Your task to perform on an android device: Add rayovac triple a to the cart on costco.com, then select checkout. Image 0: 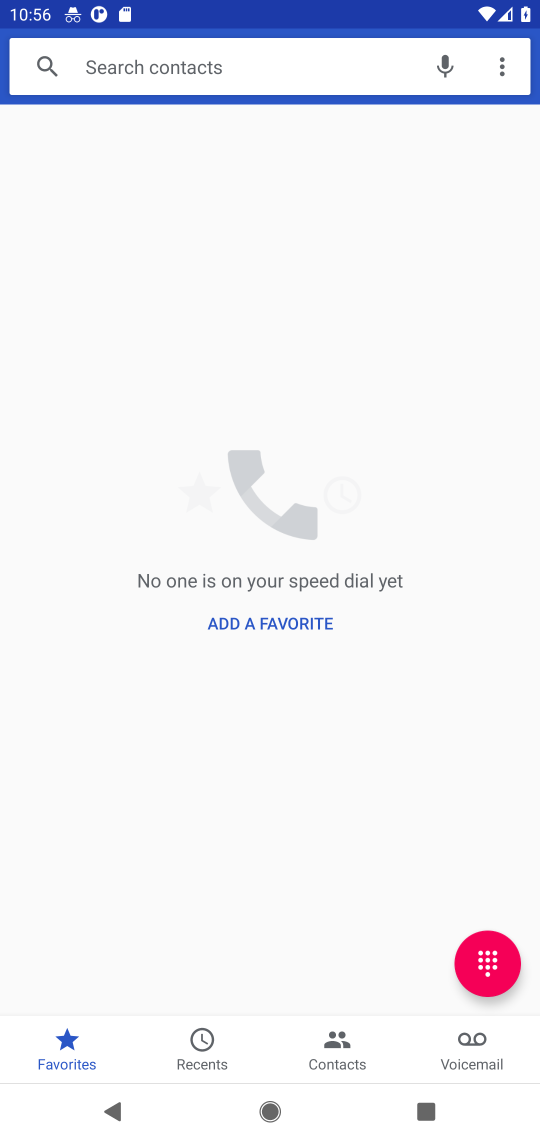
Step 0: press home button
Your task to perform on an android device: Add rayovac triple a to the cart on costco.com, then select checkout. Image 1: 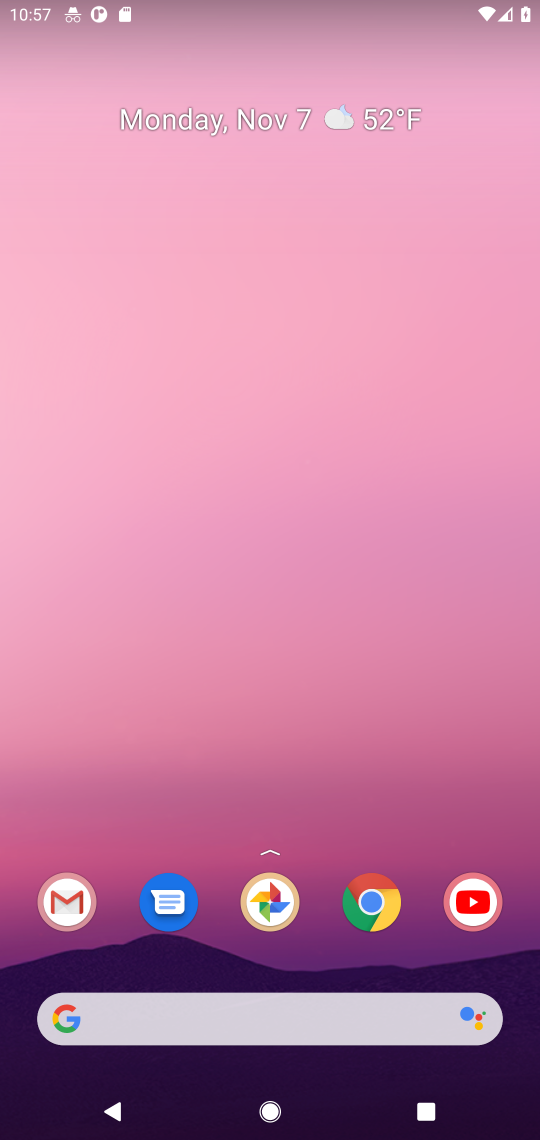
Step 1: click (377, 914)
Your task to perform on an android device: Add rayovac triple a to the cart on costco.com, then select checkout. Image 2: 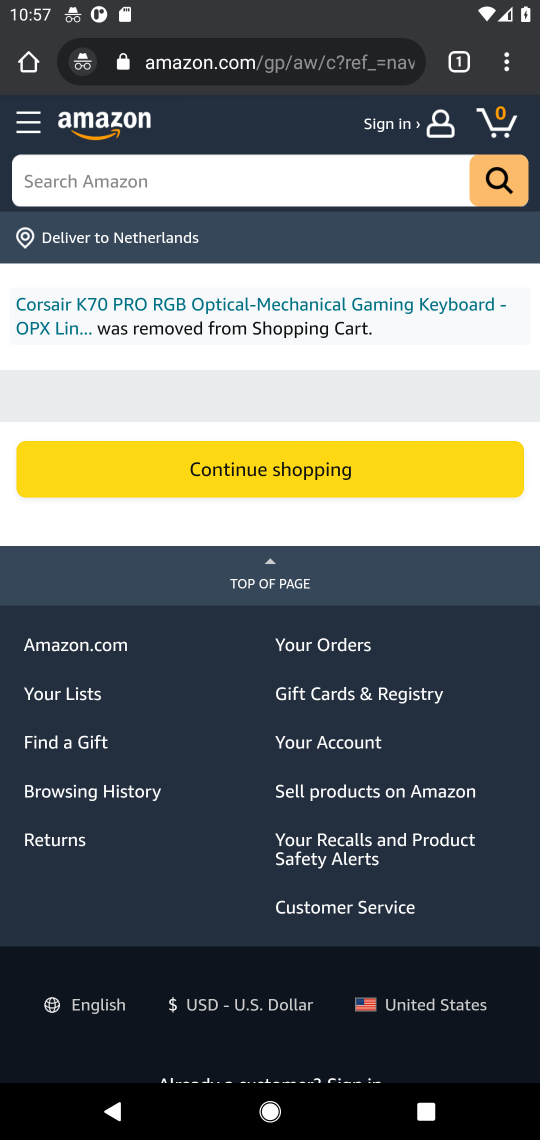
Step 2: click (220, 72)
Your task to perform on an android device: Add rayovac triple a to the cart on costco.com, then select checkout. Image 3: 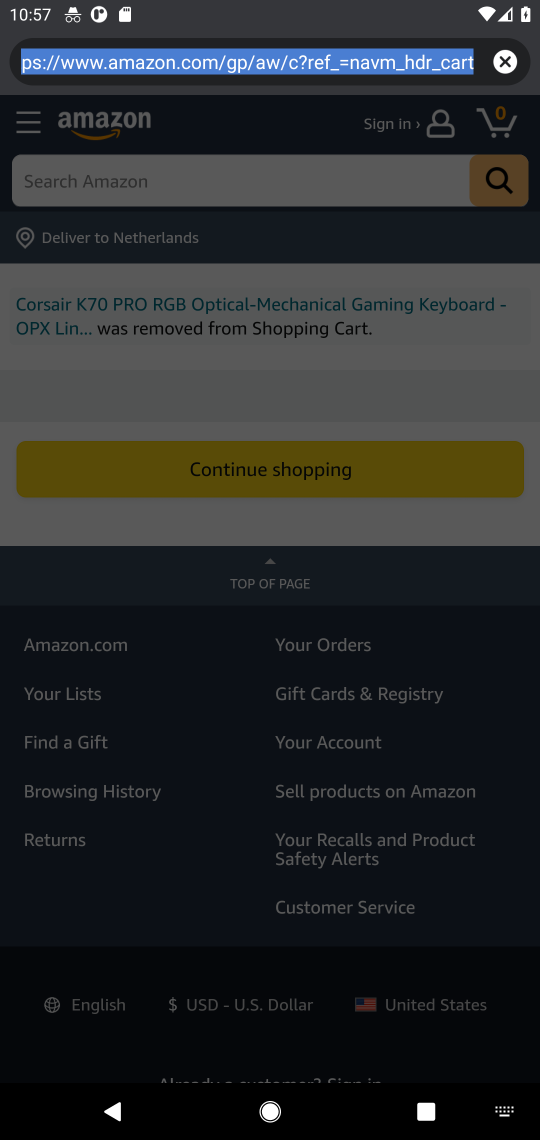
Step 3: type "costco.com"
Your task to perform on an android device: Add rayovac triple a to the cart on costco.com, then select checkout. Image 4: 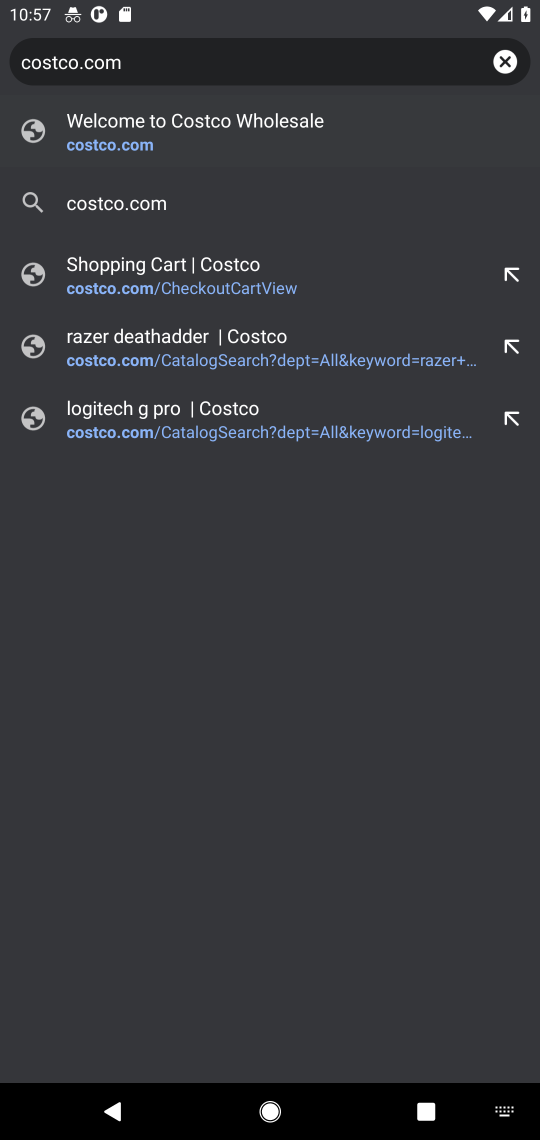
Step 4: click (129, 150)
Your task to perform on an android device: Add rayovac triple a to the cart on costco.com, then select checkout. Image 5: 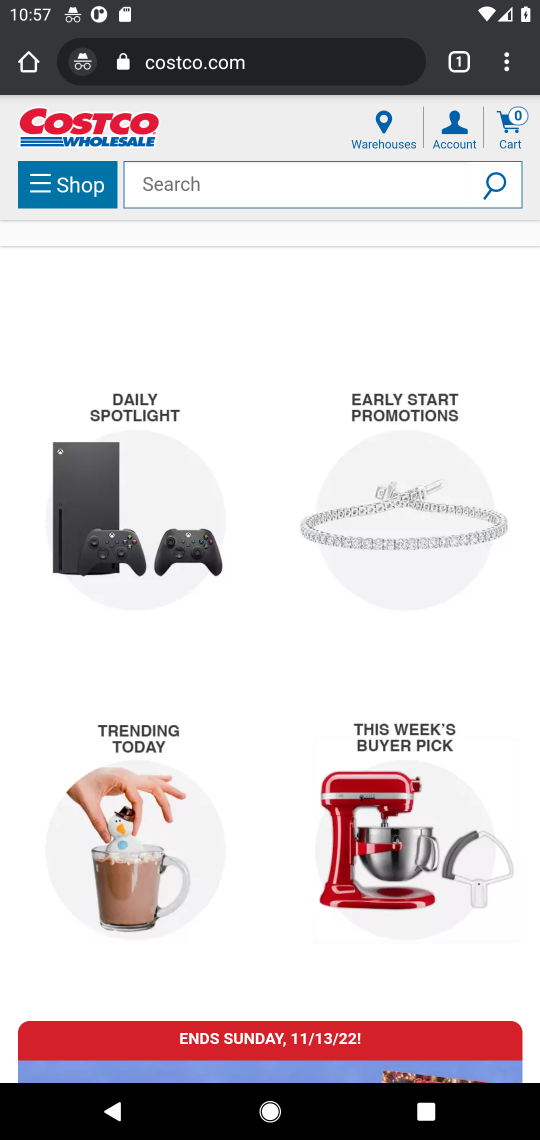
Step 5: click (153, 174)
Your task to perform on an android device: Add rayovac triple a to the cart on costco.com, then select checkout. Image 6: 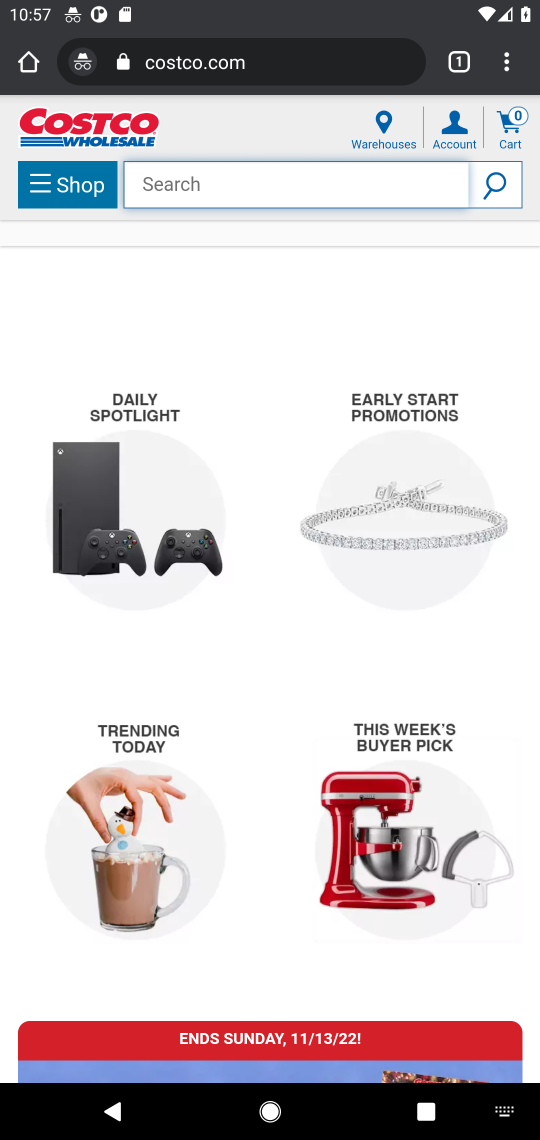
Step 6: type "rayovac triple a"
Your task to perform on an android device: Add rayovac triple a to the cart on costco.com, then select checkout. Image 7: 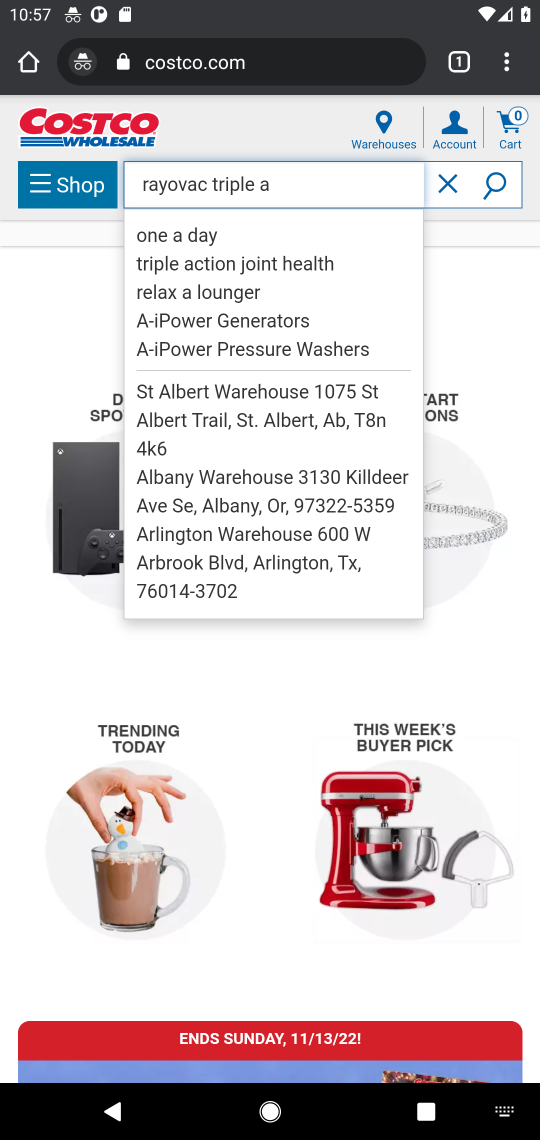
Step 7: click (497, 181)
Your task to perform on an android device: Add rayovac triple a to the cart on costco.com, then select checkout. Image 8: 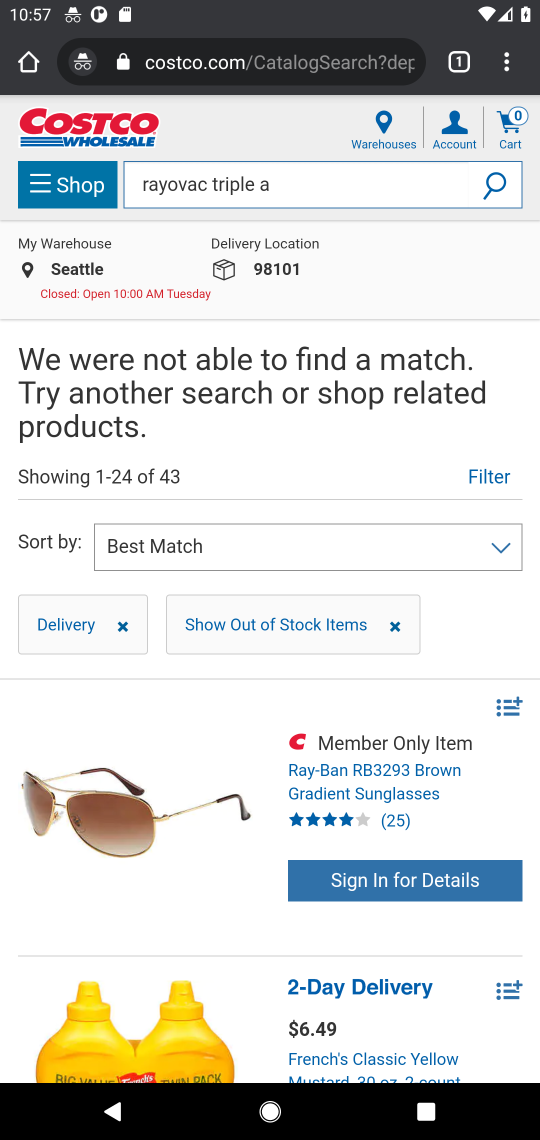
Step 8: task complete